Your task to perform on an android device: change text size in settings app Image 0: 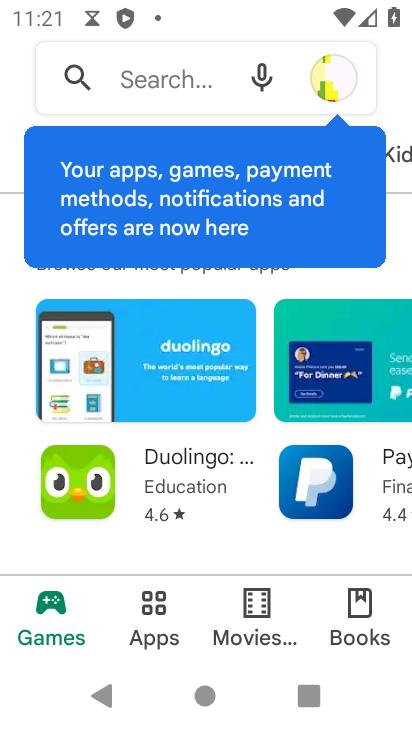
Step 0: press home button
Your task to perform on an android device: change text size in settings app Image 1: 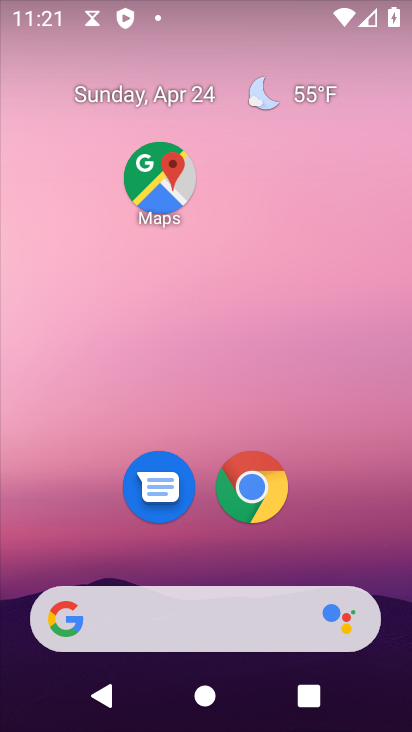
Step 1: drag from (220, 557) to (255, 113)
Your task to perform on an android device: change text size in settings app Image 2: 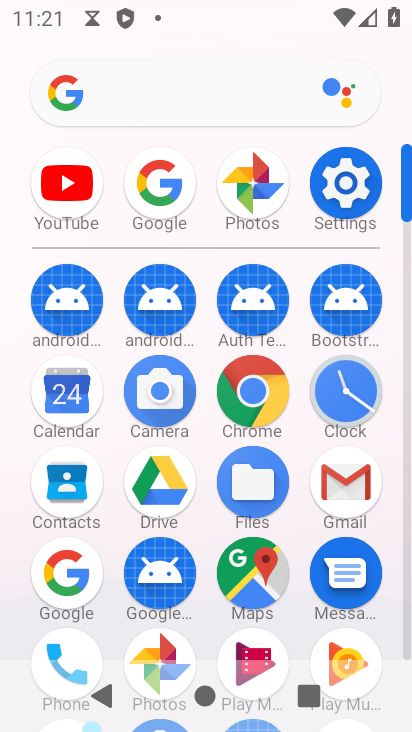
Step 2: click (361, 181)
Your task to perform on an android device: change text size in settings app Image 3: 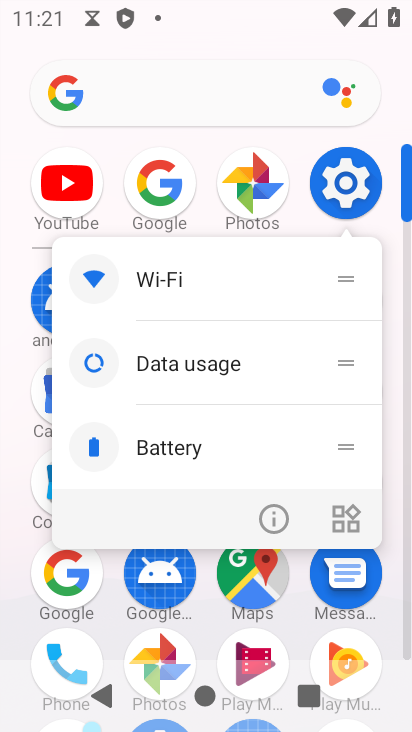
Step 3: click (270, 517)
Your task to perform on an android device: change text size in settings app Image 4: 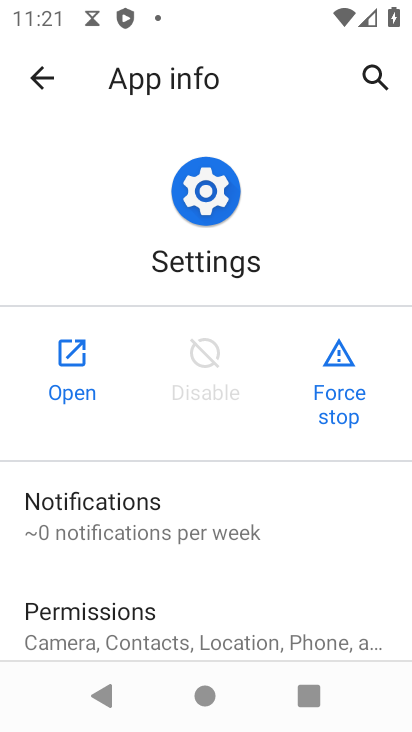
Step 4: click (55, 389)
Your task to perform on an android device: change text size in settings app Image 5: 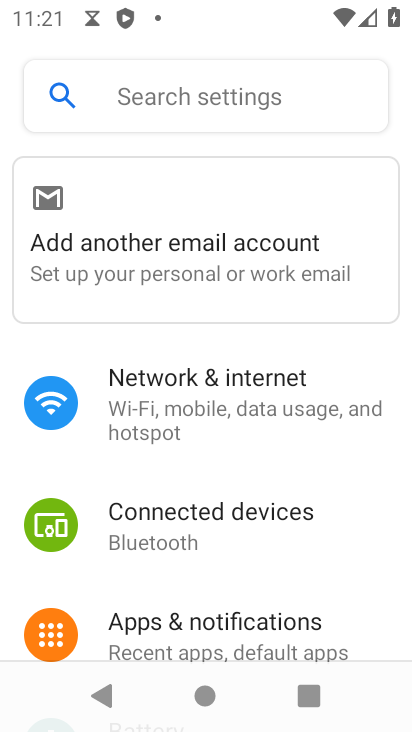
Step 5: drag from (181, 580) to (246, 338)
Your task to perform on an android device: change text size in settings app Image 6: 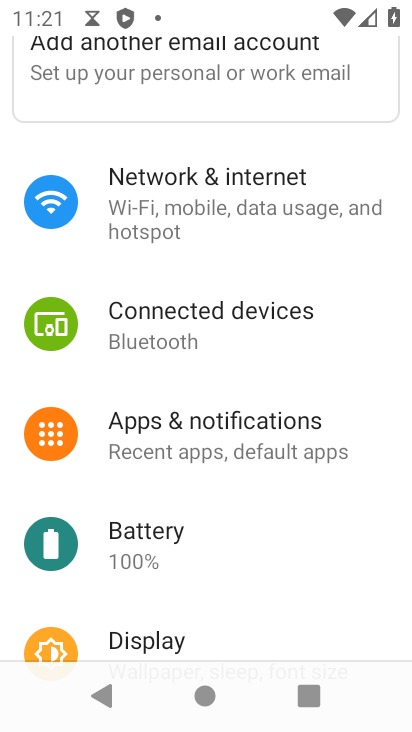
Step 6: drag from (161, 582) to (291, 299)
Your task to perform on an android device: change text size in settings app Image 7: 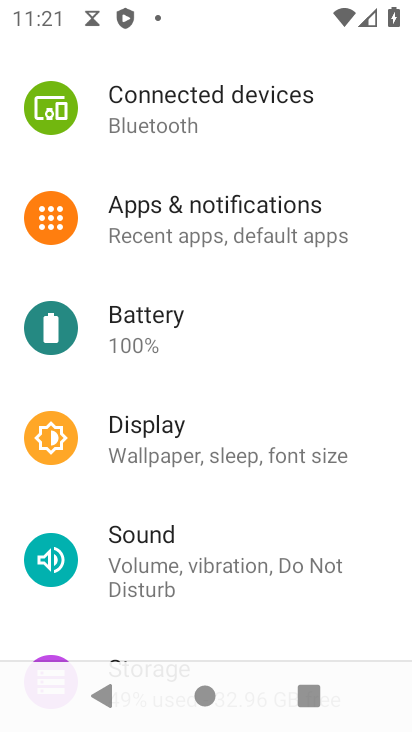
Step 7: click (242, 458)
Your task to perform on an android device: change text size in settings app Image 8: 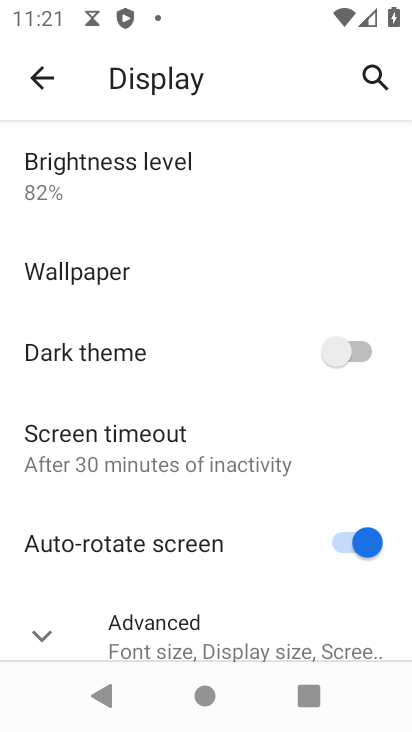
Step 8: drag from (140, 570) to (222, 323)
Your task to perform on an android device: change text size in settings app Image 9: 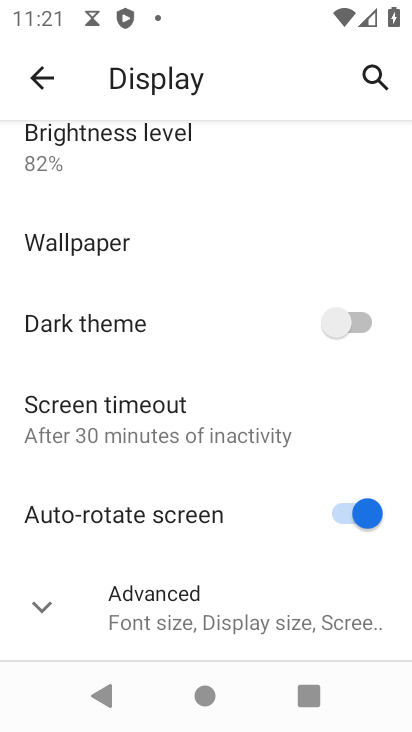
Step 9: click (121, 603)
Your task to perform on an android device: change text size in settings app Image 10: 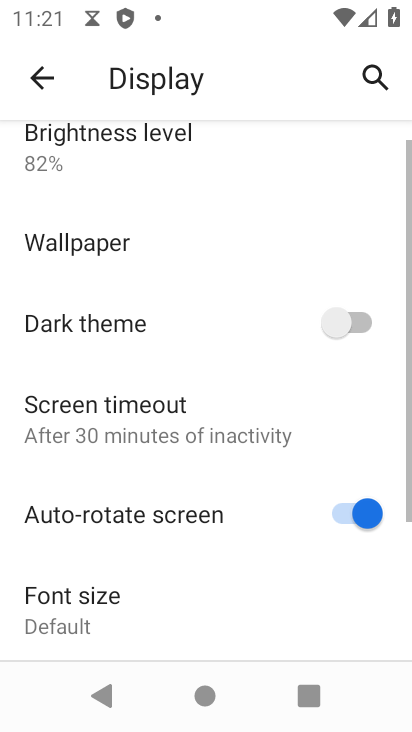
Step 10: drag from (138, 567) to (201, 380)
Your task to perform on an android device: change text size in settings app Image 11: 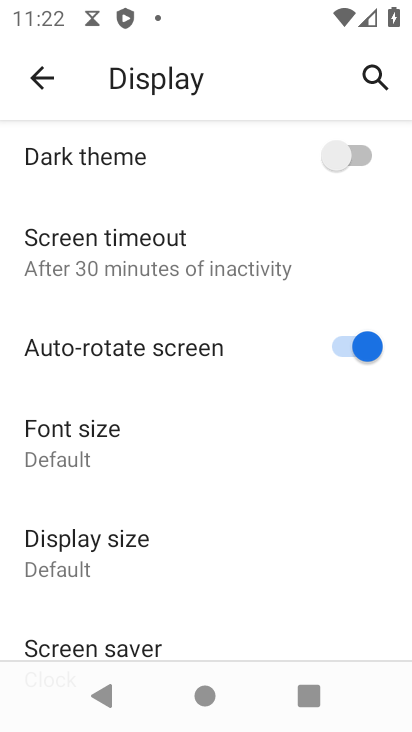
Step 11: click (134, 463)
Your task to perform on an android device: change text size in settings app Image 12: 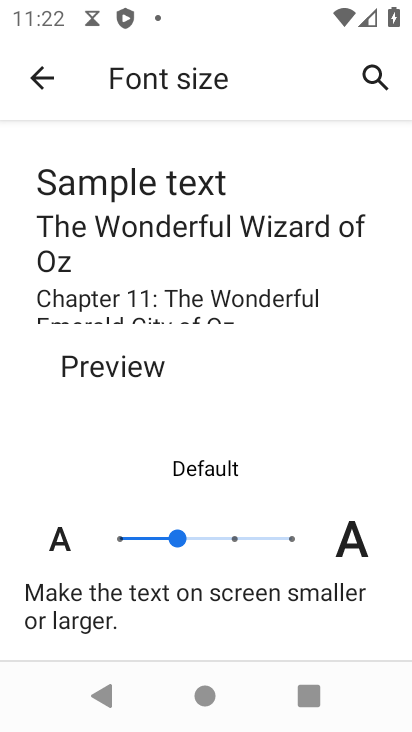
Step 12: click (231, 537)
Your task to perform on an android device: change text size in settings app Image 13: 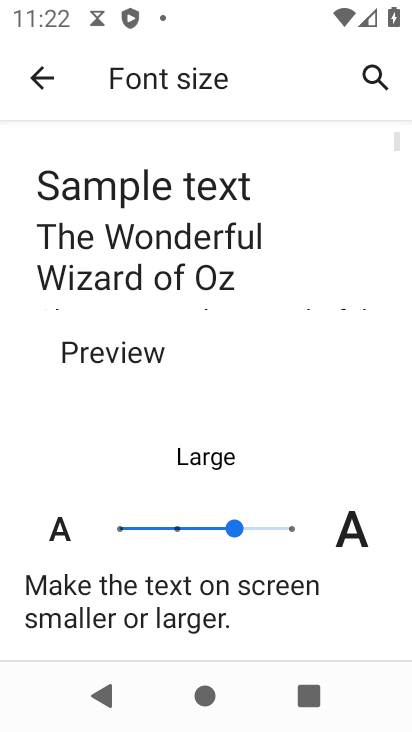
Step 13: task complete